Your task to perform on an android device: Open location settings Image 0: 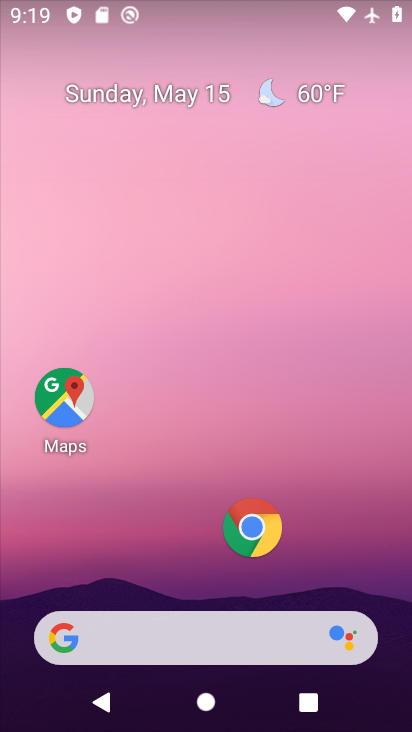
Step 0: drag from (200, 576) to (227, 7)
Your task to perform on an android device: Open location settings Image 1: 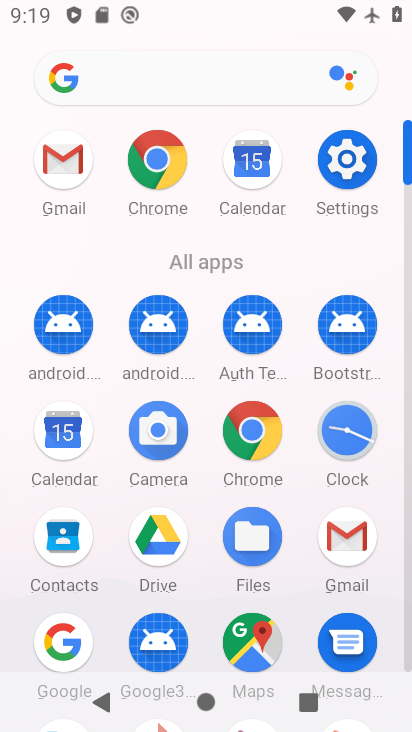
Step 1: click (345, 153)
Your task to perform on an android device: Open location settings Image 2: 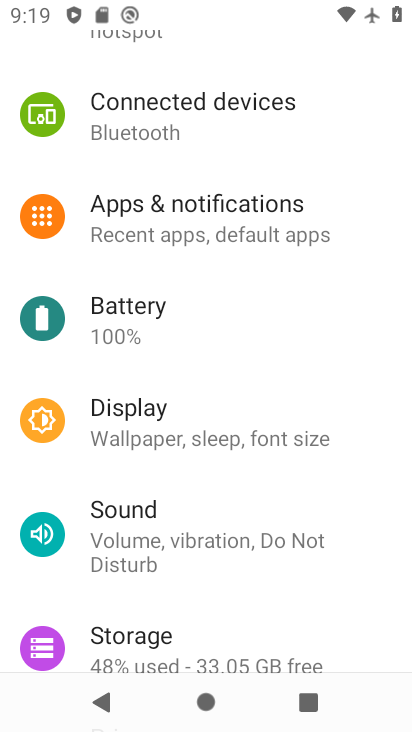
Step 2: drag from (196, 629) to (193, 196)
Your task to perform on an android device: Open location settings Image 3: 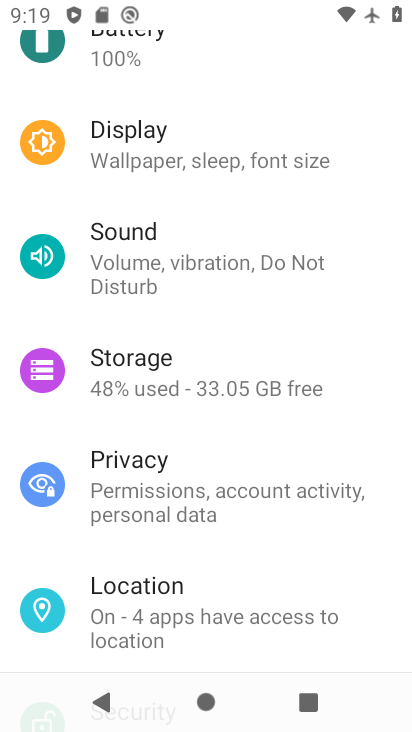
Step 3: click (194, 604)
Your task to perform on an android device: Open location settings Image 4: 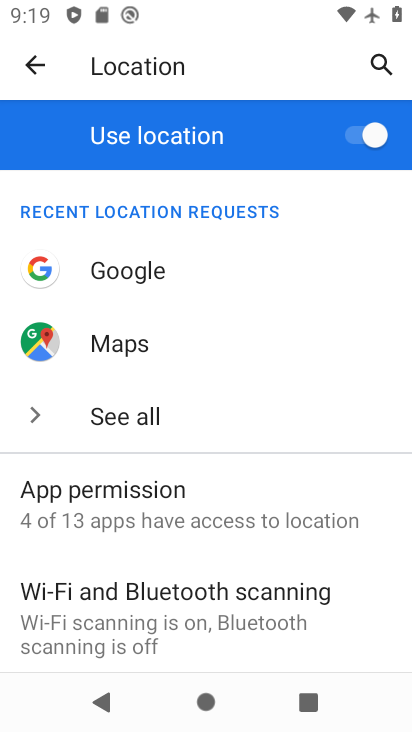
Step 4: drag from (202, 637) to (208, 236)
Your task to perform on an android device: Open location settings Image 5: 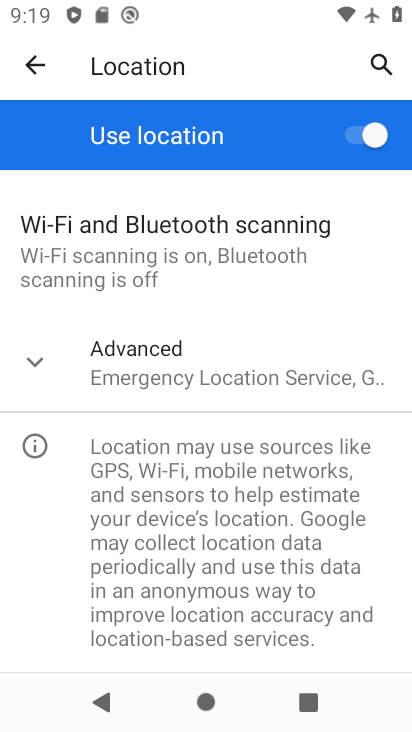
Step 5: click (29, 350)
Your task to perform on an android device: Open location settings Image 6: 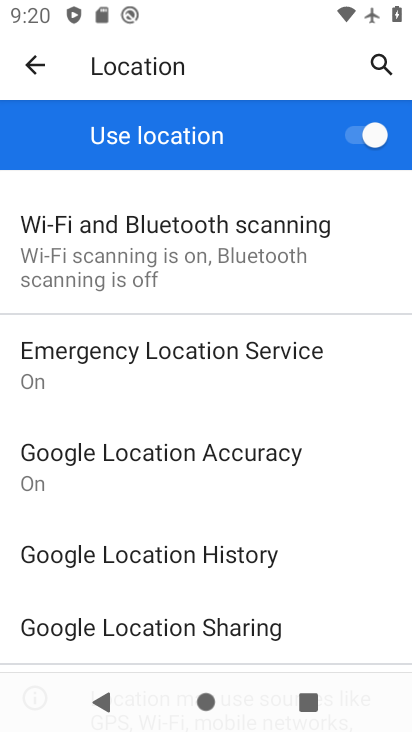
Step 6: task complete